Your task to perform on an android device: What's the weather today? Image 0: 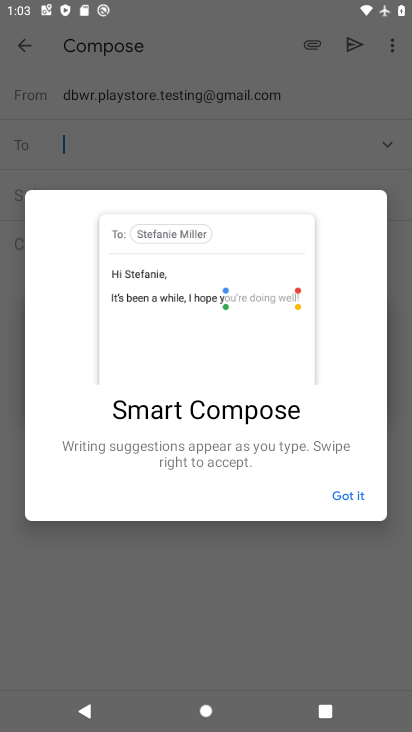
Step 0: press home button
Your task to perform on an android device: What's the weather today? Image 1: 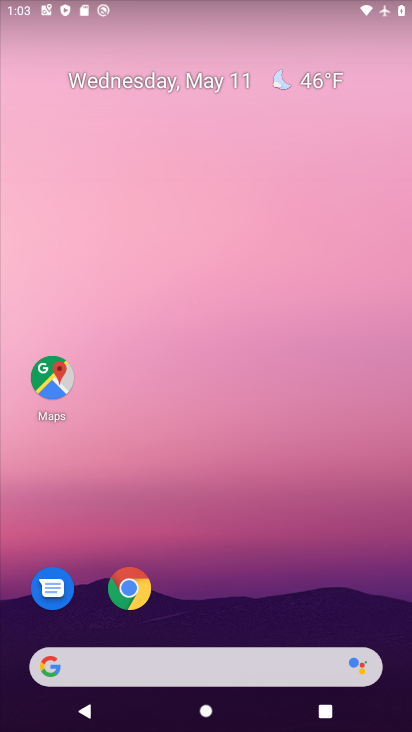
Step 1: click (133, 601)
Your task to perform on an android device: What's the weather today? Image 2: 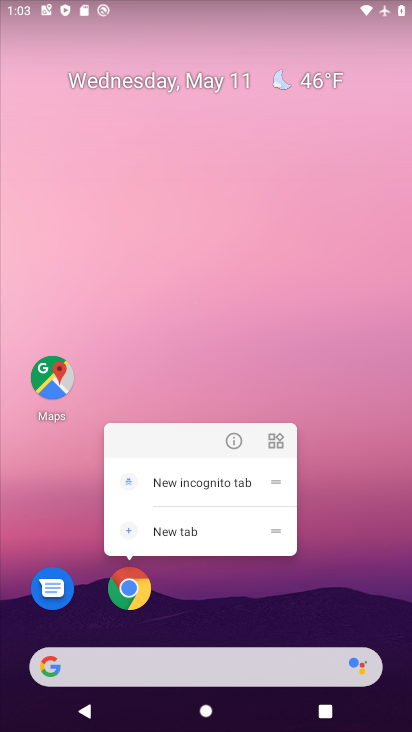
Step 2: click (138, 590)
Your task to perform on an android device: What's the weather today? Image 3: 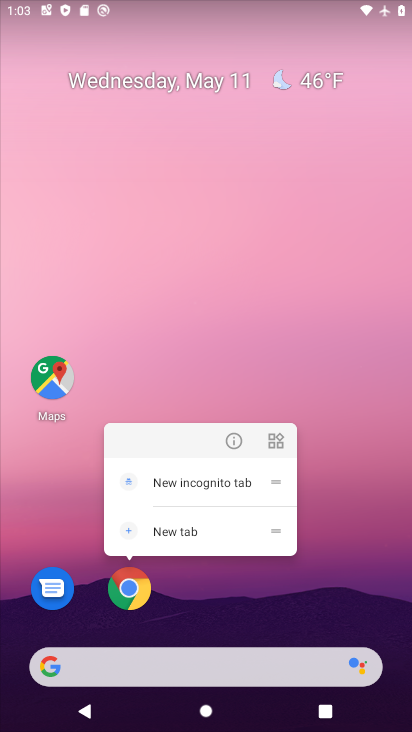
Step 3: click (133, 602)
Your task to perform on an android device: What's the weather today? Image 4: 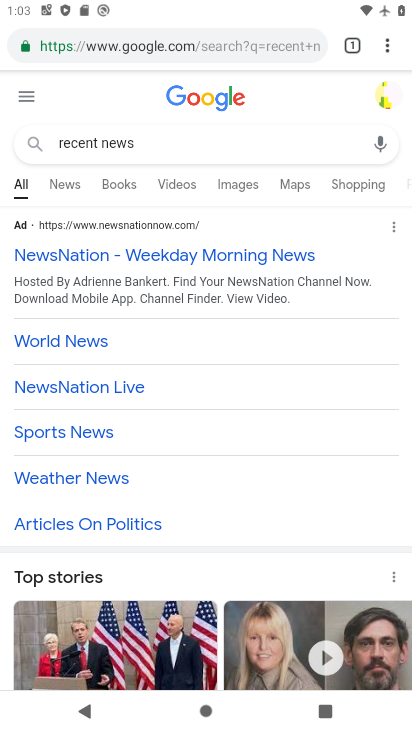
Step 4: click (240, 40)
Your task to perform on an android device: What's the weather today? Image 5: 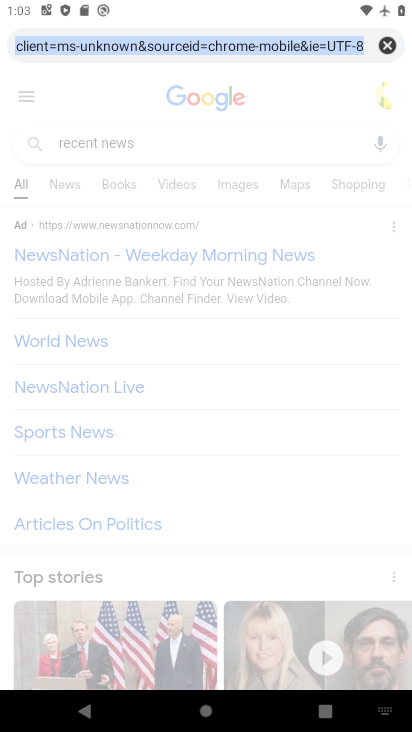
Step 5: type "whats the weather today"
Your task to perform on an android device: What's the weather today? Image 6: 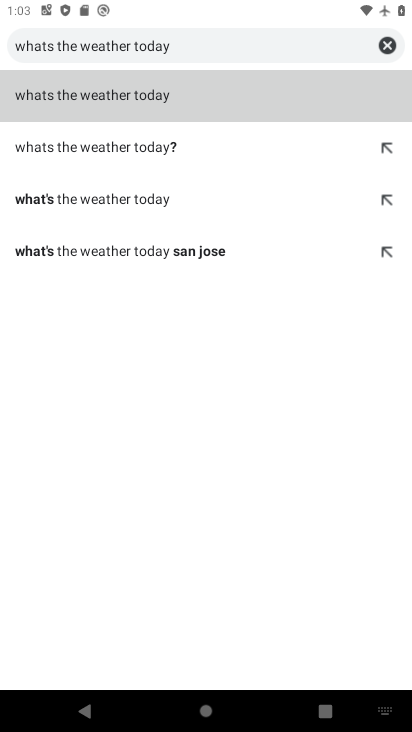
Step 6: click (142, 93)
Your task to perform on an android device: What's the weather today? Image 7: 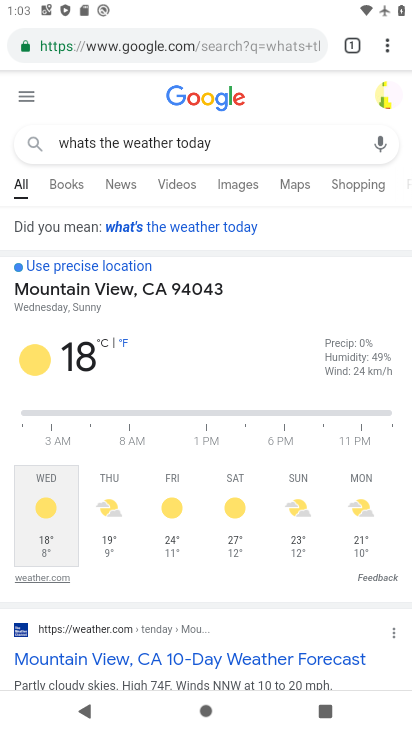
Step 7: task complete